Your task to perform on an android device: Find the nearest electronics store that's open tomorrow Image 0: 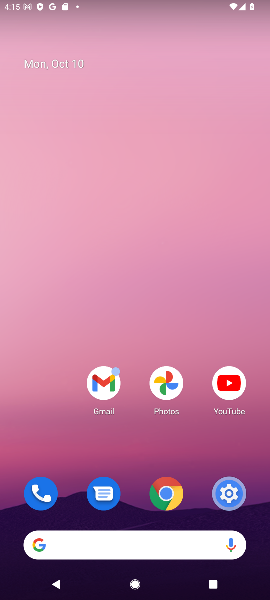
Step 0: click (143, 541)
Your task to perform on an android device: Find the nearest electronics store that's open tomorrow Image 1: 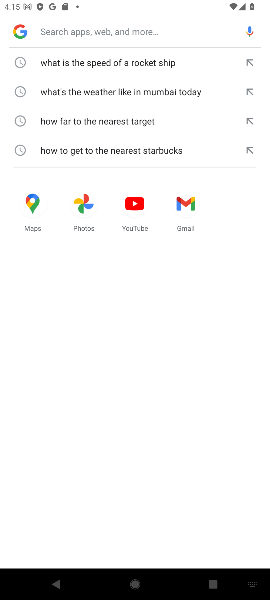
Step 1: type "Find the nearest electronics store that's open tomorrow"
Your task to perform on an android device: Find the nearest electronics store that's open tomorrow Image 2: 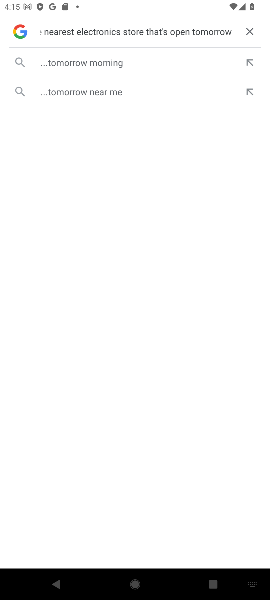
Step 2: click (119, 66)
Your task to perform on an android device: Find the nearest electronics store that's open tomorrow Image 3: 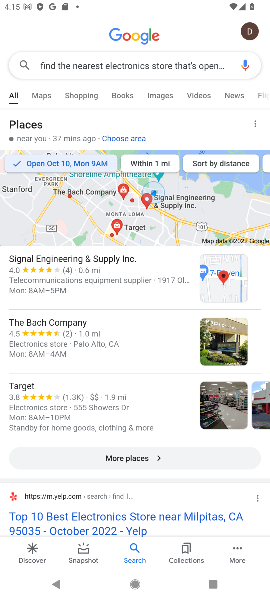
Step 3: task complete